Your task to perform on an android device: turn on the 24-hour format for clock Image 0: 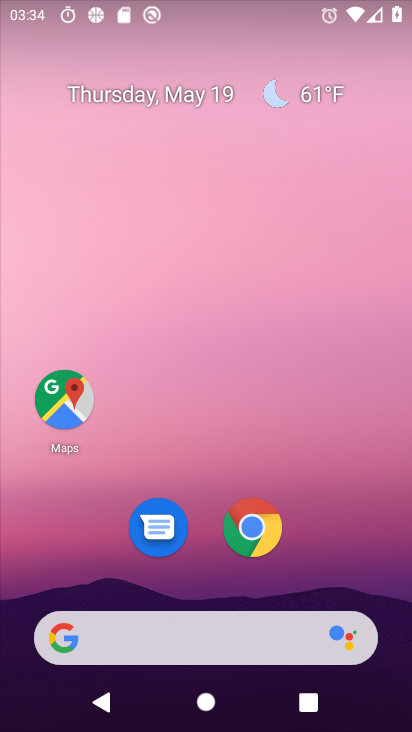
Step 0: drag from (188, 589) to (283, 107)
Your task to perform on an android device: turn on the 24-hour format for clock Image 1: 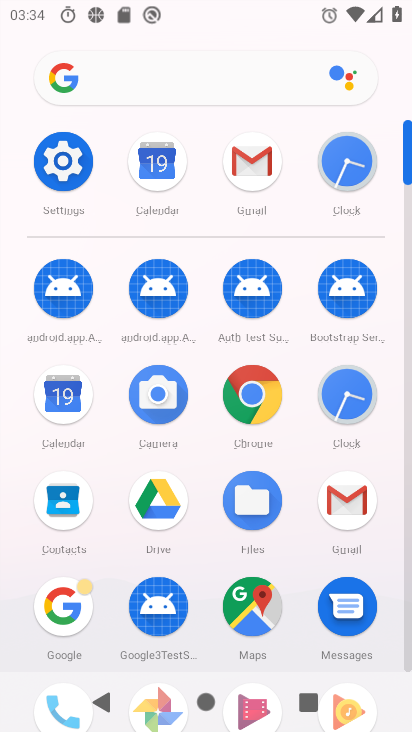
Step 1: click (350, 388)
Your task to perform on an android device: turn on the 24-hour format for clock Image 2: 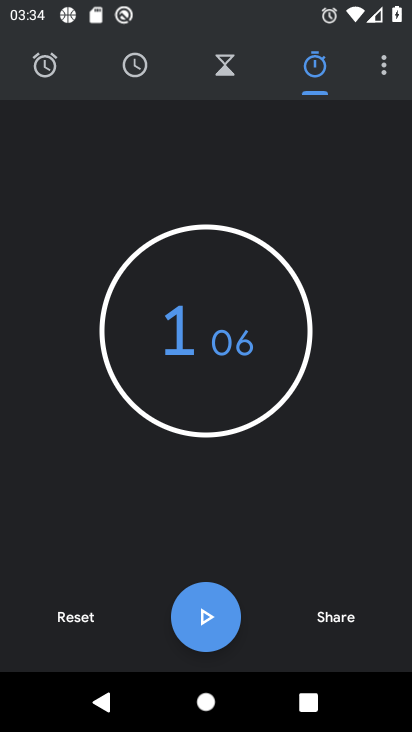
Step 2: click (377, 70)
Your task to perform on an android device: turn on the 24-hour format for clock Image 3: 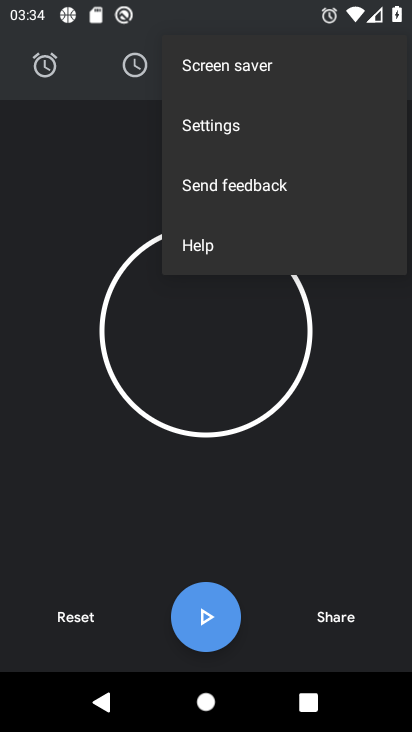
Step 3: click (221, 118)
Your task to perform on an android device: turn on the 24-hour format for clock Image 4: 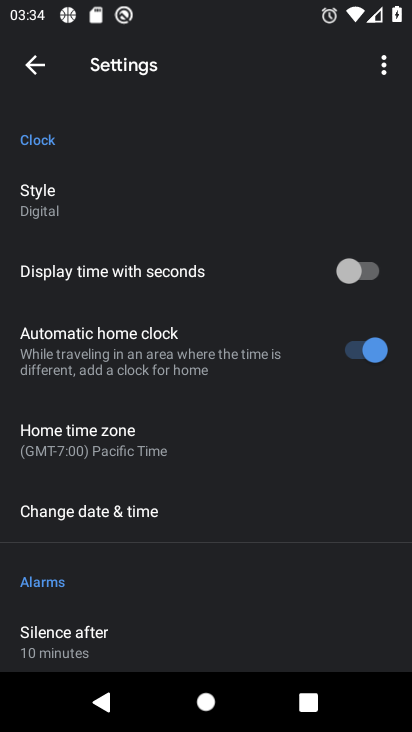
Step 4: click (119, 519)
Your task to perform on an android device: turn on the 24-hour format for clock Image 5: 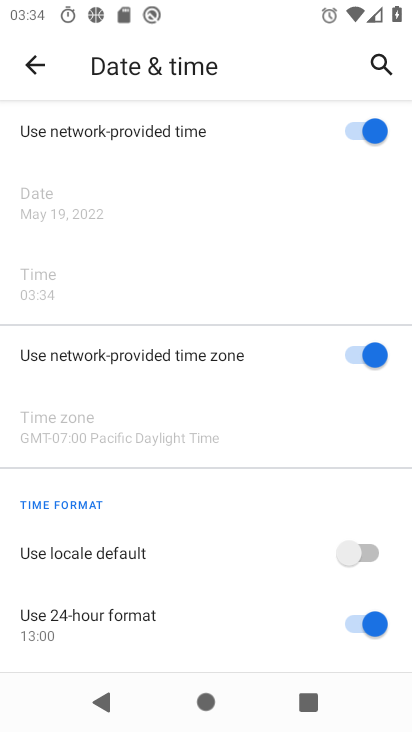
Step 5: task complete